Your task to perform on an android device: make emails show in primary in the gmail app Image 0: 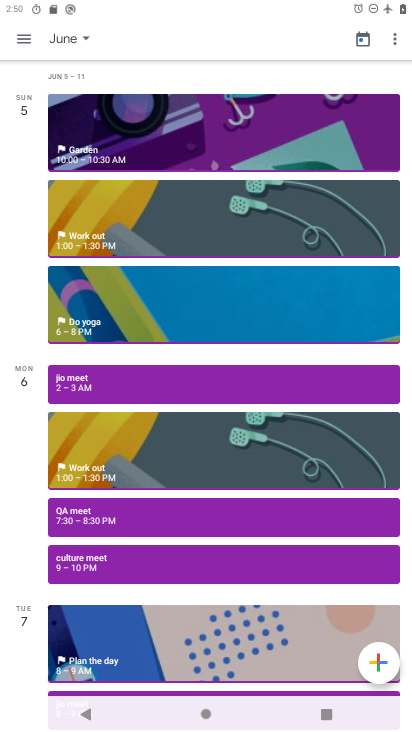
Step 0: press home button
Your task to perform on an android device: make emails show in primary in the gmail app Image 1: 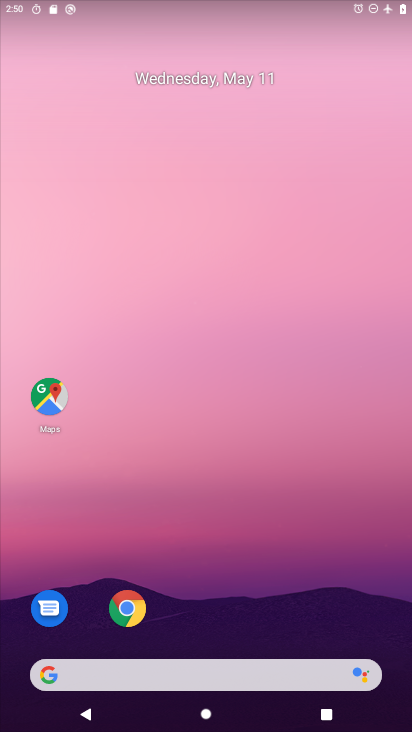
Step 1: drag from (291, 628) to (288, 92)
Your task to perform on an android device: make emails show in primary in the gmail app Image 2: 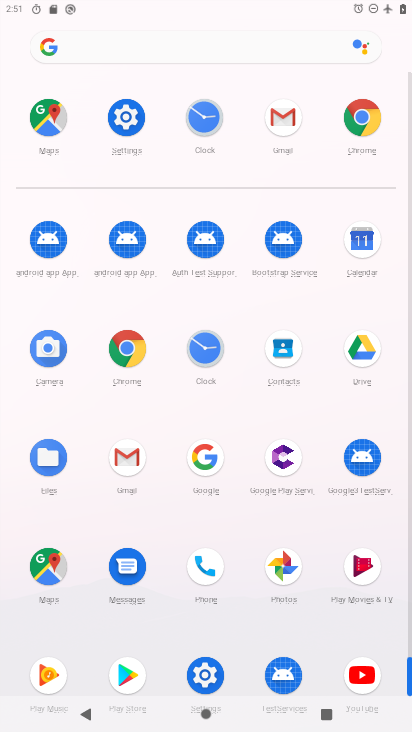
Step 2: click (122, 468)
Your task to perform on an android device: make emails show in primary in the gmail app Image 3: 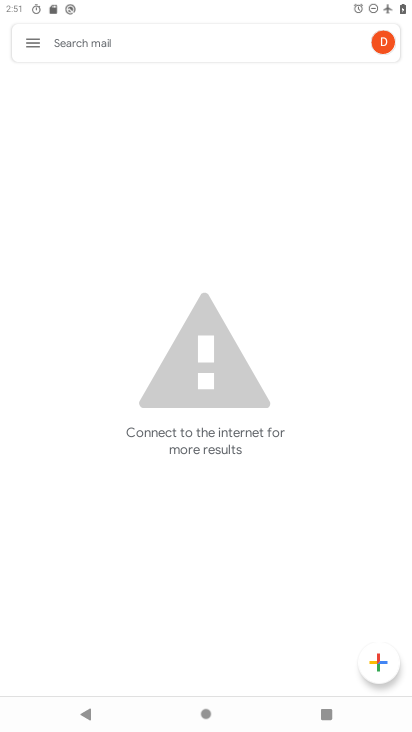
Step 3: click (21, 40)
Your task to perform on an android device: make emails show in primary in the gmail app Image 4: 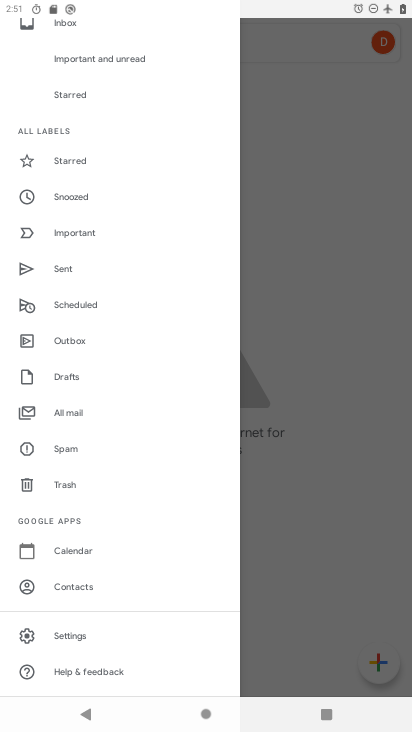
Step 4: click (93, 641)
Your task to perform on an android device: make emails show in primary in the gmail app Image 5: 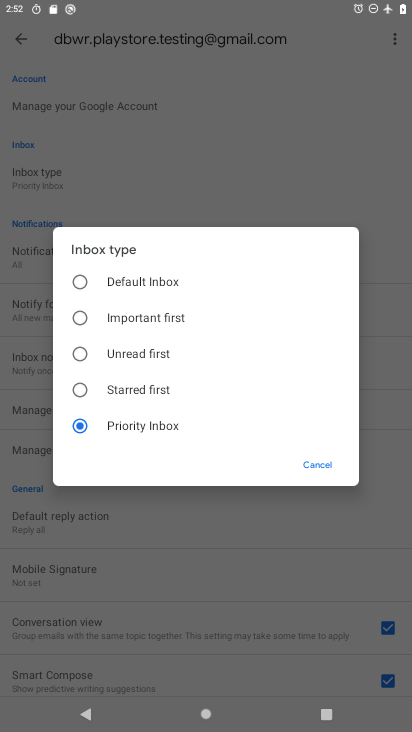
Step 5: task complete